Your task to perform on an android device: Toggle the flashlight Image 0: 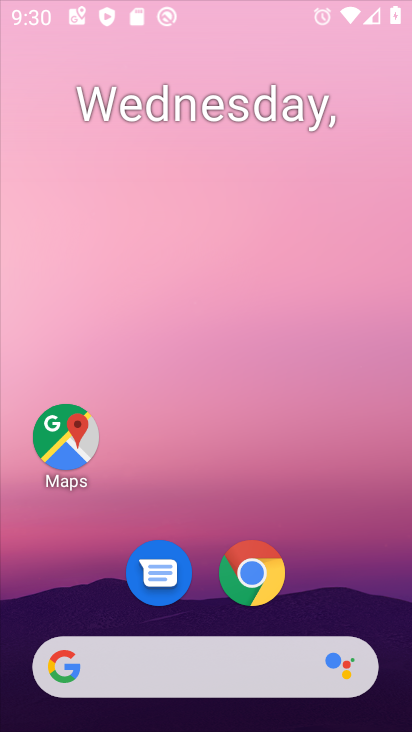
Step 0: click (290, 269)
Your task to perform on an android device: Toggle the flashlight Image 1: 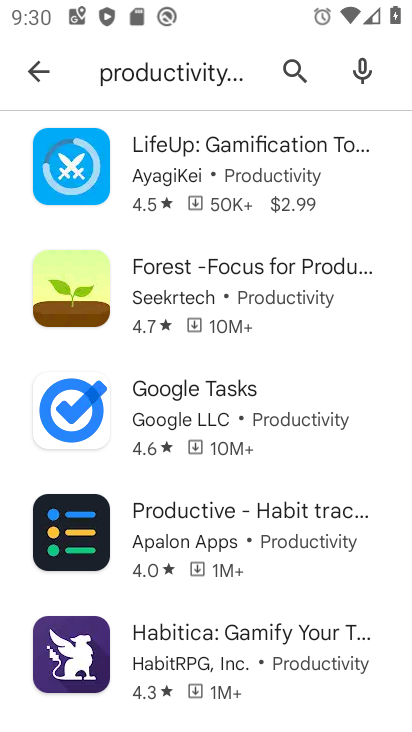
Step 1: task complete